Your task to perform on an android device: toggle airplane mode Image 0: 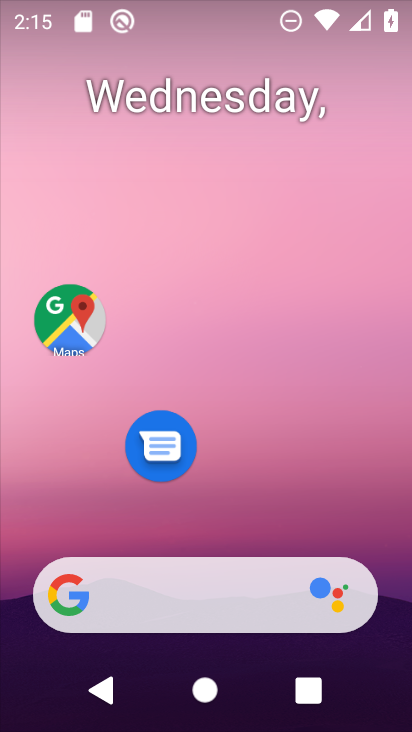
Step 0: drag from (246, 525) to (270, 185)
Your task to perform on an android device: toggle airplane mode Image 1: 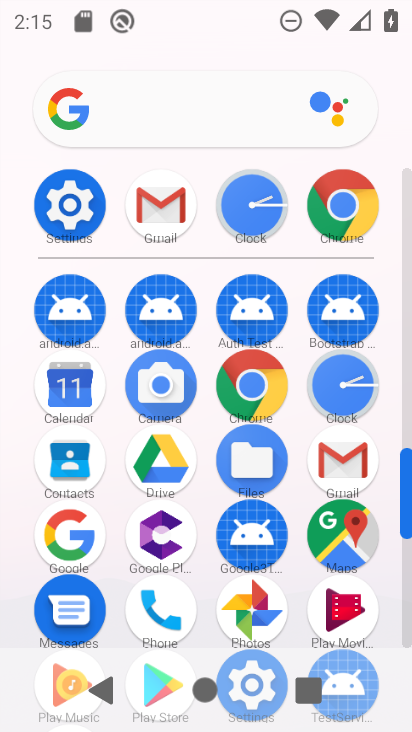
Step 1: click (60, 225)
Your task to perform on an android device: toggle airplane mode Image 2: 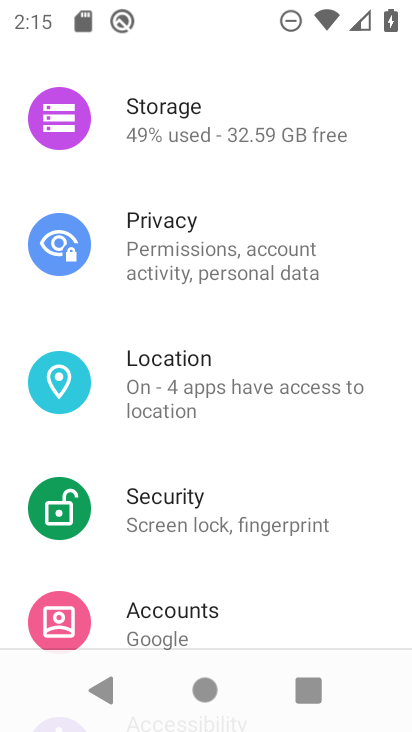
Step 2: drag from (217, 234) to (246, 677)
Your task to perform on an android device: toggle airplane mode Image 3: 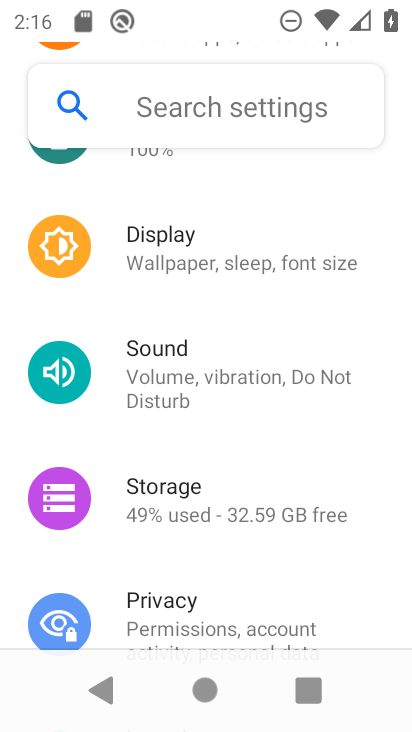
Step 3: drag from (267, 260) to (264, 688)
Your task to perform on an android device: toggle airplane mode Image 4: 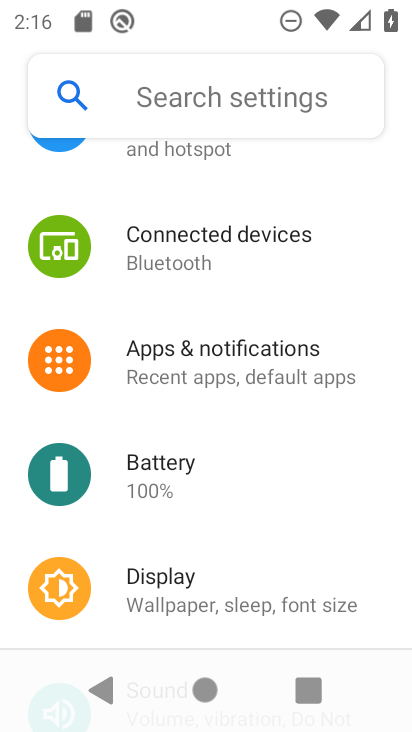
Step 4: drag from (230, 248) to (271, 668)
Your task to perform on an android device: toggle airplane mode Image 5: 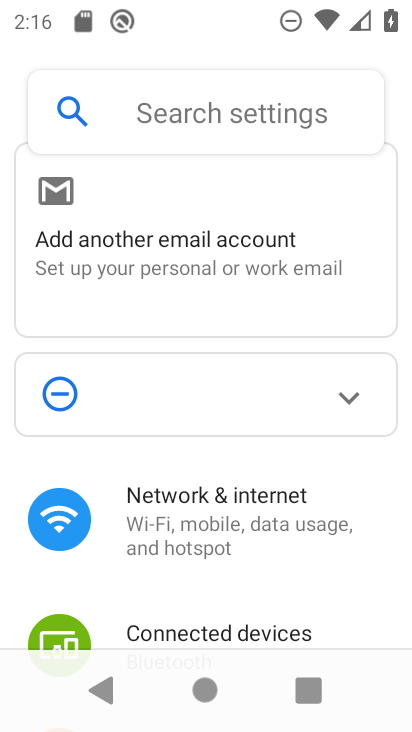
Step 5: click (236, 552)
Your task to perform on an android device: toggle airplane mode Image 6: 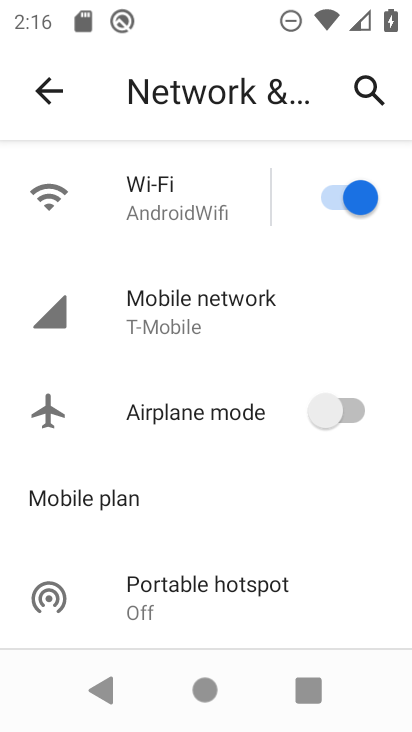
Step 6: click (329, 388)
Your task to perform on an android device: toggle airplane mode Image 7: 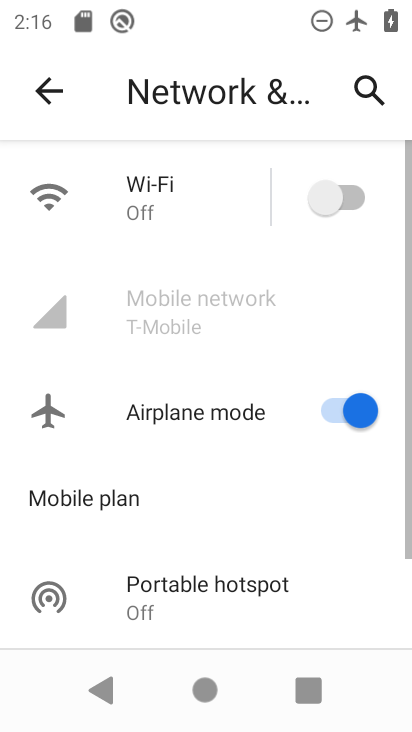
Step 7: click (369, 184)
Your task to perform on an android device: toggle airplane mode Image 8: 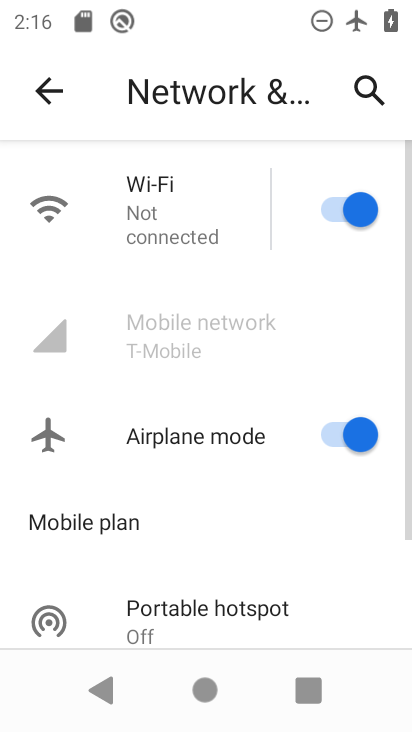
Step 8: task complete